Your task to perform on an android device: Do I have any events tomorrow? Image 0: 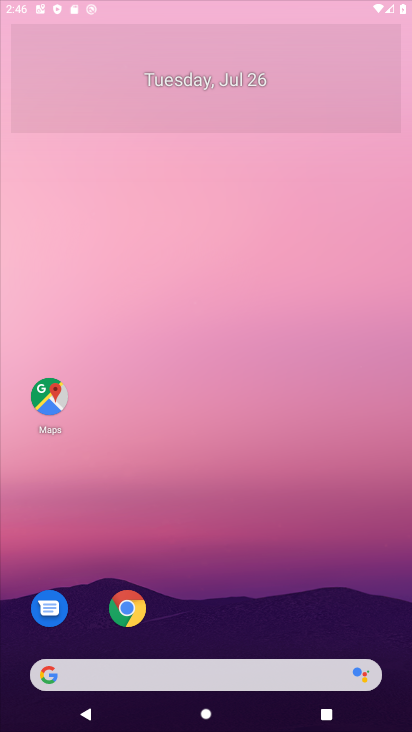
Step 0: click (250, 192)
Your task to perform on an android device: Do I have any events tomorrow? Image 1: 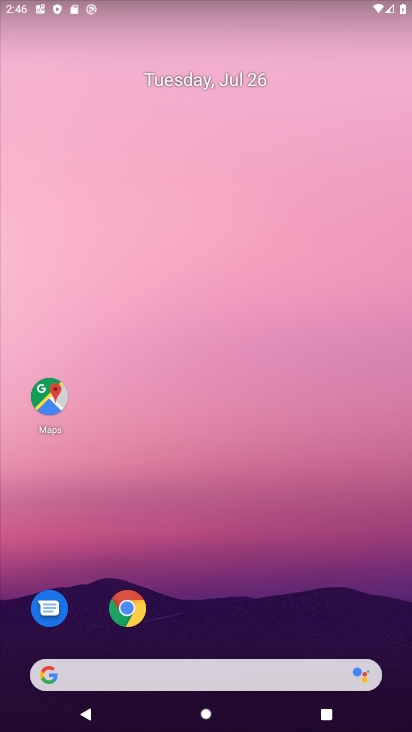
Step 1: drag from (242, 510) to (289, 39)
Your task to perform on an android device: Do I have any events tomorrow? Image 2: 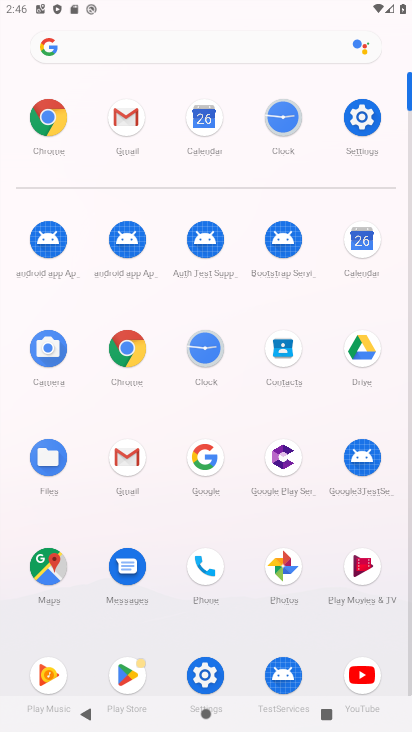
Step 2: click (361, 111)
Your task to perform on an android device: Do I have any events tomorrow? Image 3: 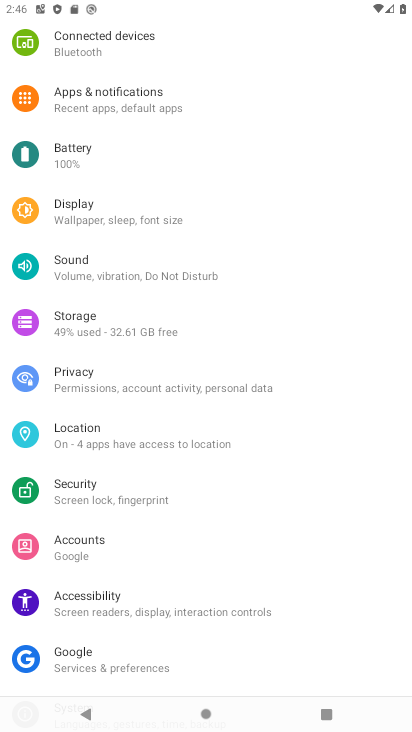
Step 3: press home button
Your task to perform on an android device: Do I have any events tomorrow? Image 4: 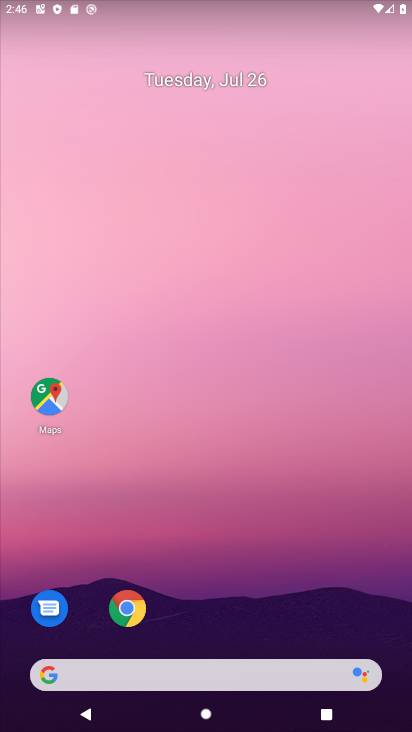
Step 4: drag from (268, 611) to (292, 386)
Your task to perform on an android device: Do I have any events tomorrow? Image 5: 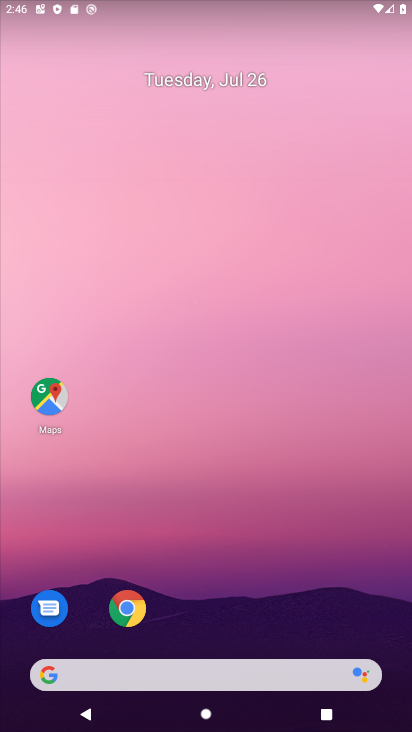
Step 5: drag from (317, 508) to (349, 16)
Your task to perform on an android device: Do I have any events tomorrow? Image 6: 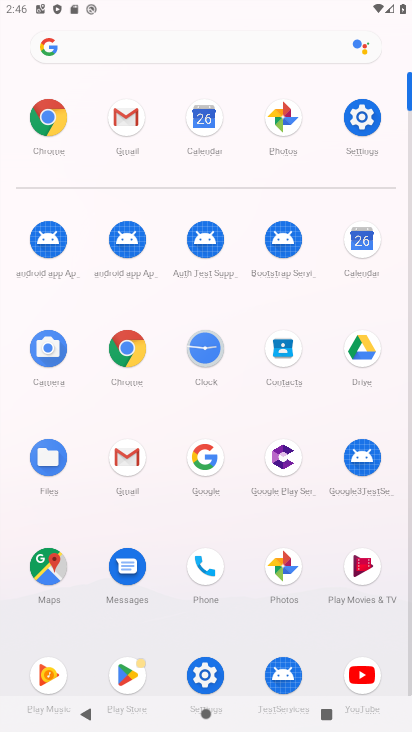
Step 6: click (361, 239)
Your task to perform on an android device: Do I have any events tomorrow? Image 7: 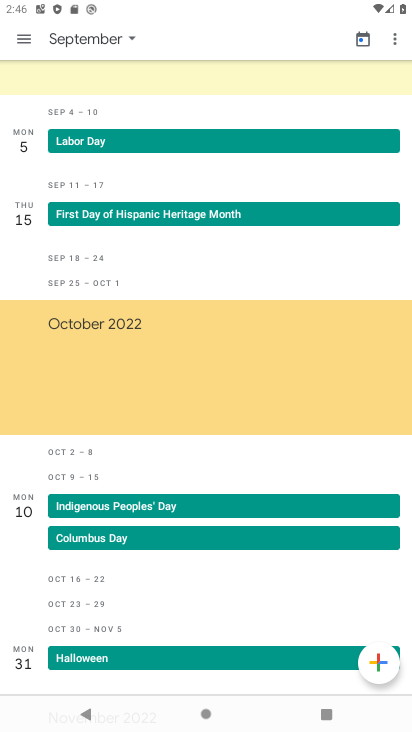
Step 7: task complete